Your task to perform on an android device: turn smart compose on in the gmail app Image 0: 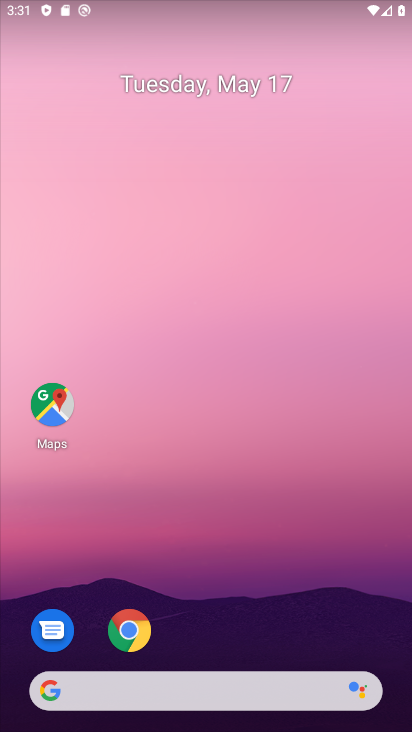
Step 0: drag from (197, 662) to (318, 122)
Your task to perform on an android device: turn smart compose on in the gmail app Image 1: 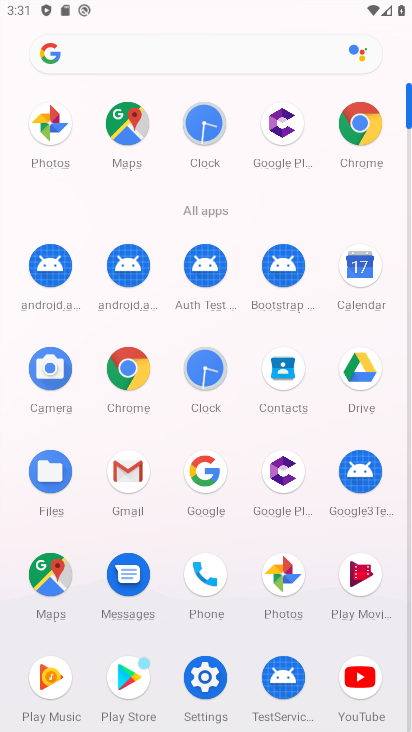
Step 1: click (134, 468)
Your task to perform on an android device: turn smart compose on in the gmail app Image 2: 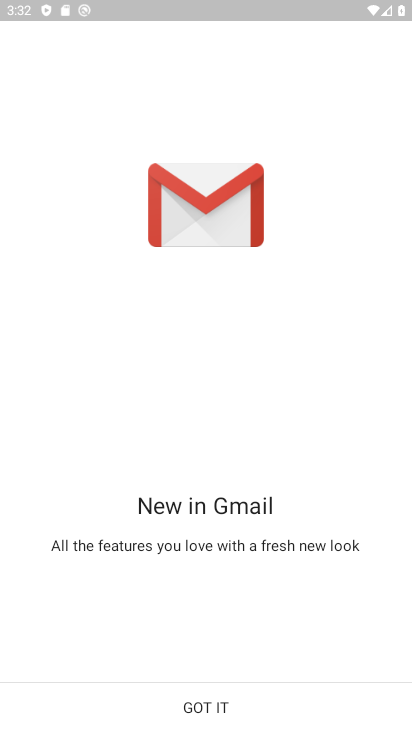
Step 2: click (235, 723)
Your task to perform on an android device: turn smart compose on in the gmail app Image 3: 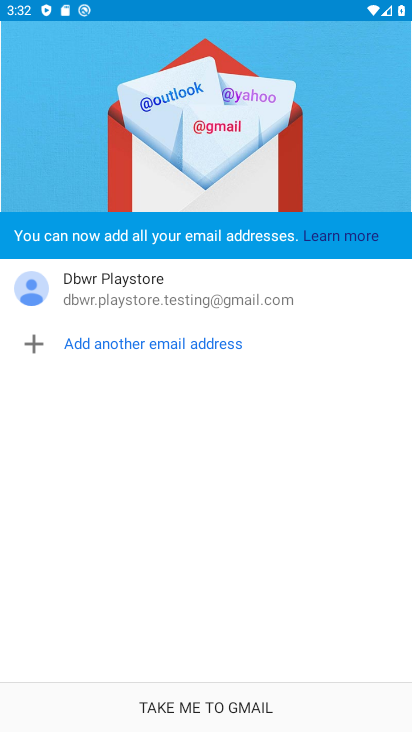
Step 3: click (239, 713)
Your task to perform on an android device: turn smart compose on in the gmail app Image 4: 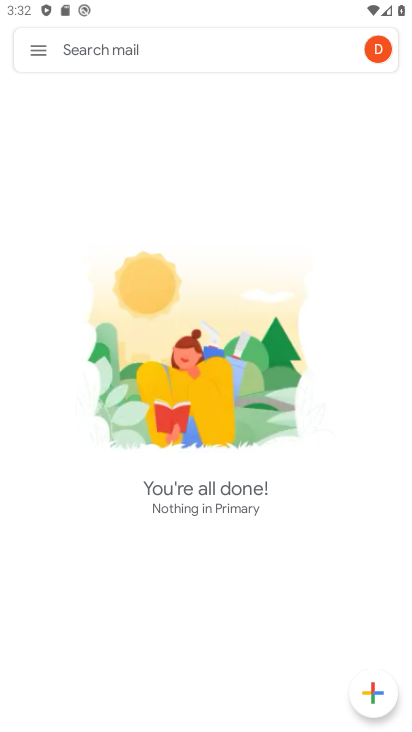
Step 4: click (48, 56)
Your task to perform on an android device: turn smart compose on in the gmail app Image 5: 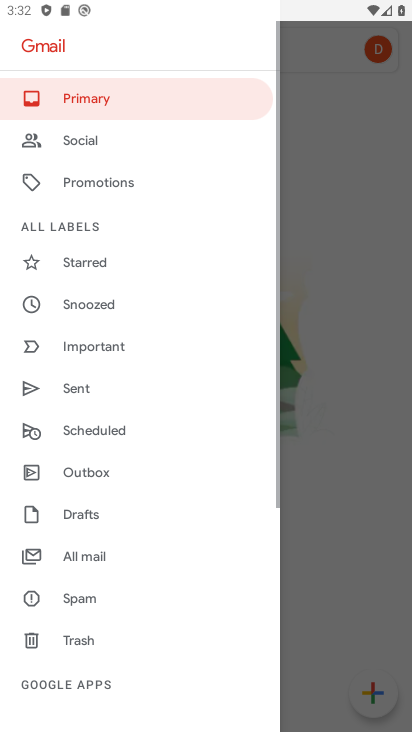
Step 5: drag from (99, 506) to (205, 205)
Your task to perform on an android device: turn smart compose on in the gmail app Image 6: 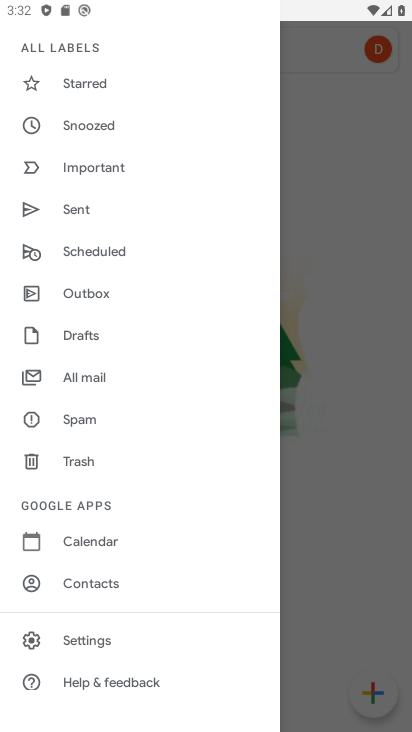
Step 6: click (118, 637)
Your task to perform on an android device: turn smart compose on in the gmail app Image 7: 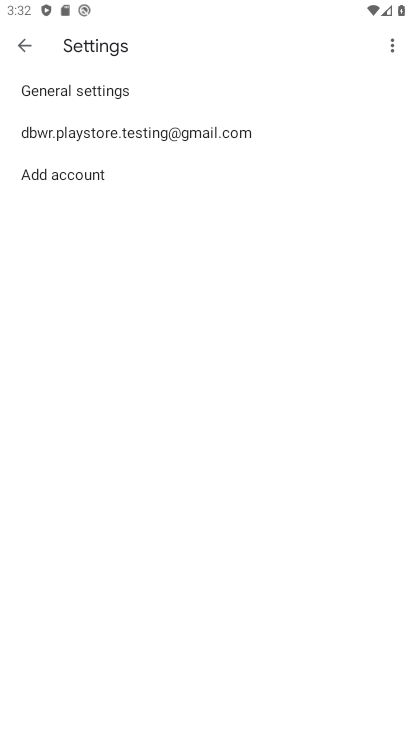
Step 7: click (198, 139)
Your task to perform on an android device: turn smart compose on in the gmail app Image 8: 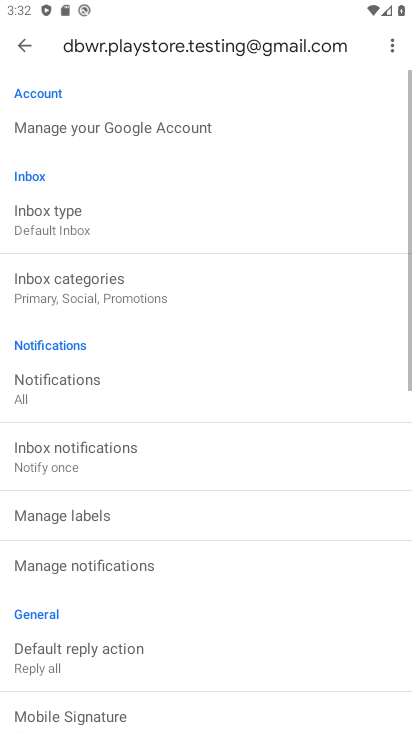
Step 8: task complete